Your task to perform on an android device: What's the weather going to be this weekend? Image 0: 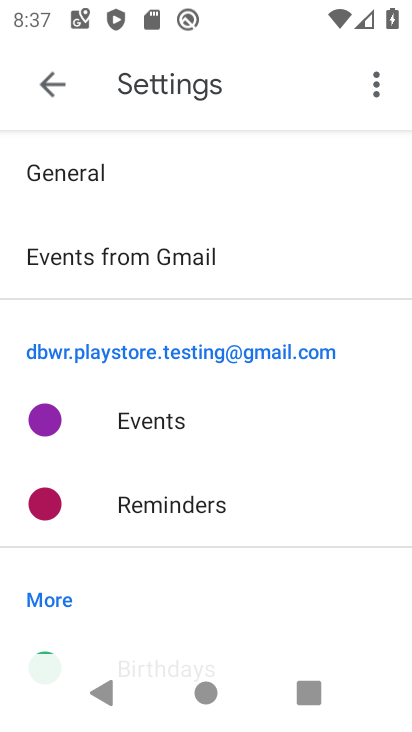
Step 0: press home button
Your task to perform on an android device: What's the weather going to be this weekend? Image 1: 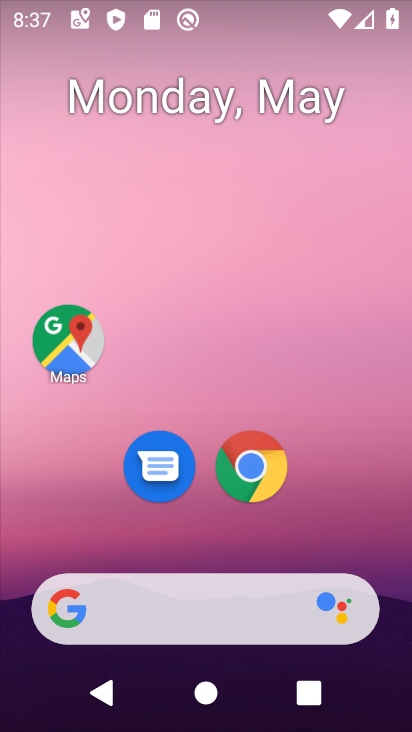
Step 1: click (167, 636)
Your task to perform on an android device: What's the weather going to be this weekend? Image 2: 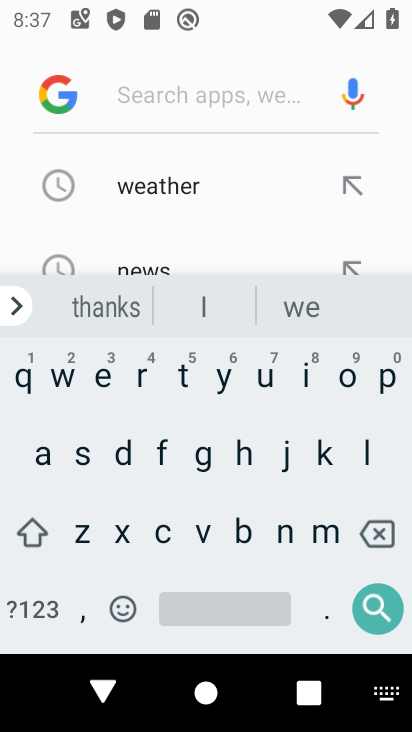
Step 2: click (153, 191)
Your task to perform on an android device: What's the weather going to be this weekend? Image 3: 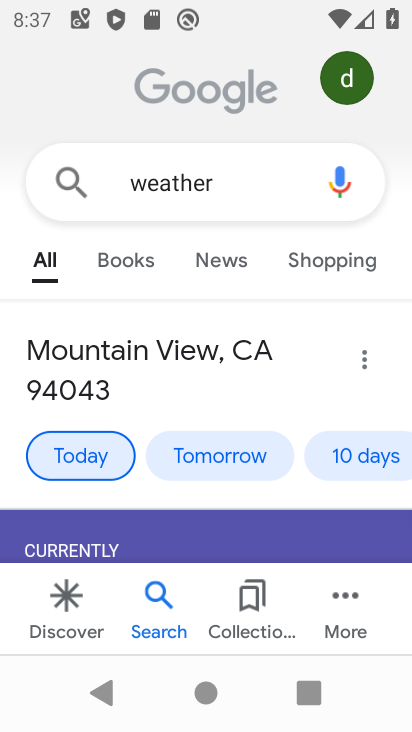
Step 3: click (353, 459)
Your task to perform on an android device: What's the weather going to be this weekend? Image 4: 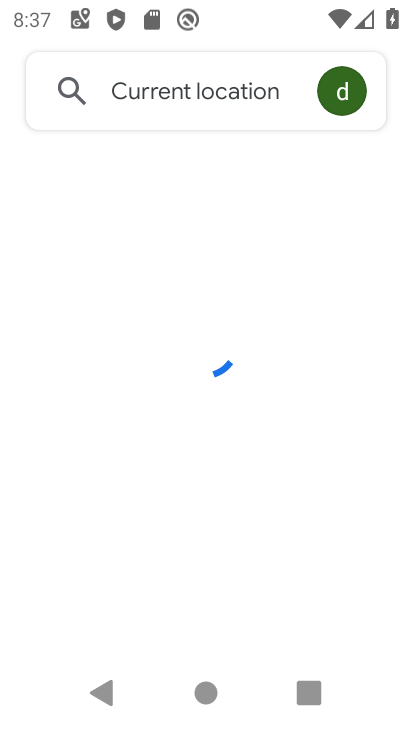
Step 4: click (353, 459)
Your task to perform on an android device: What's the weather going to be this weekend? Image 5: 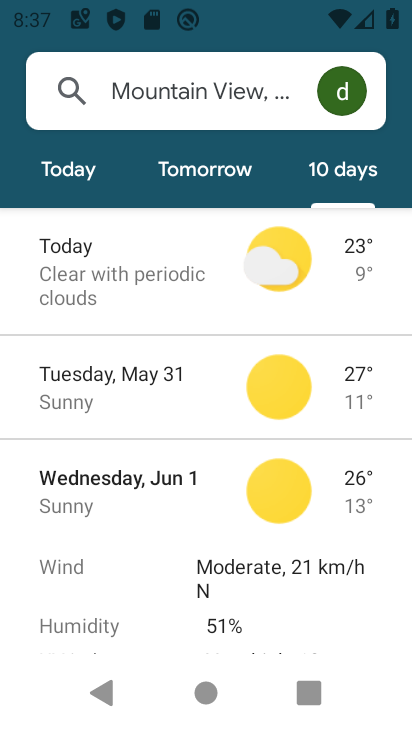
Step 5: task complete